Your task to perform on an android device: Go to Google maps Image 0: 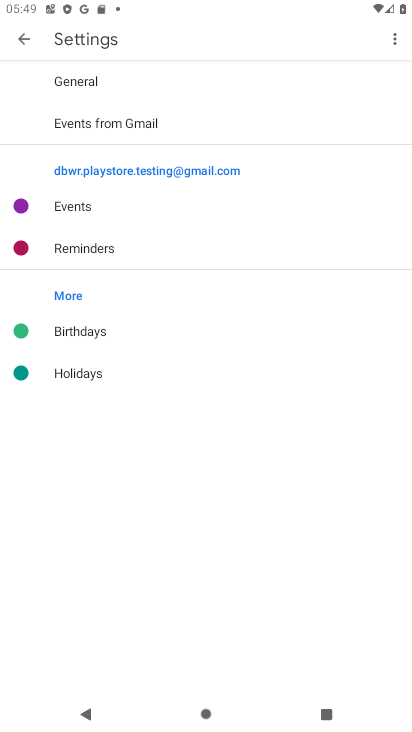
Step 0: press home button
Your task to perform on an android device: Go to Google maps Image 1: 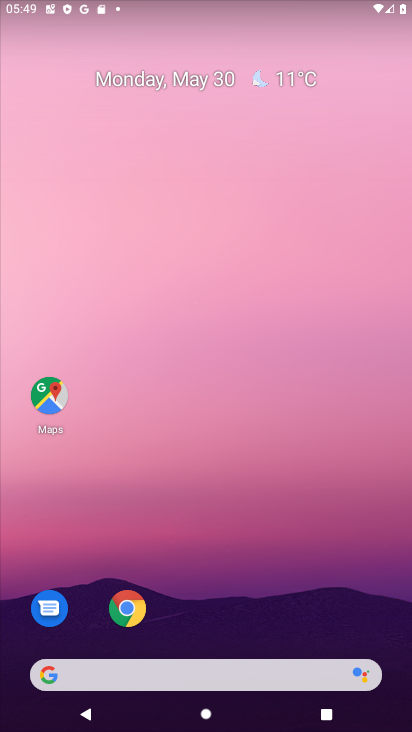
Step 1: click (39, 390)
Your task to perform on an android device: Go to Google maps Image 2: 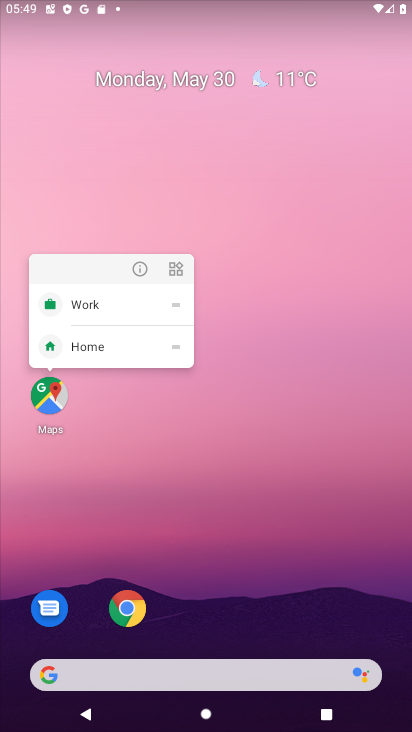
Step 2: click (48, 397)
Your task to perform on an android device: Go to Google maps Image 3: 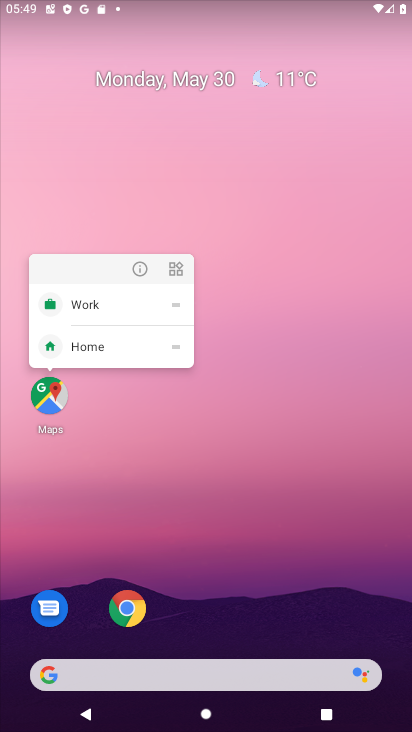
Step 3: click (54, 405)
Your task to perform on an android device: Go to Google maps Image 4: 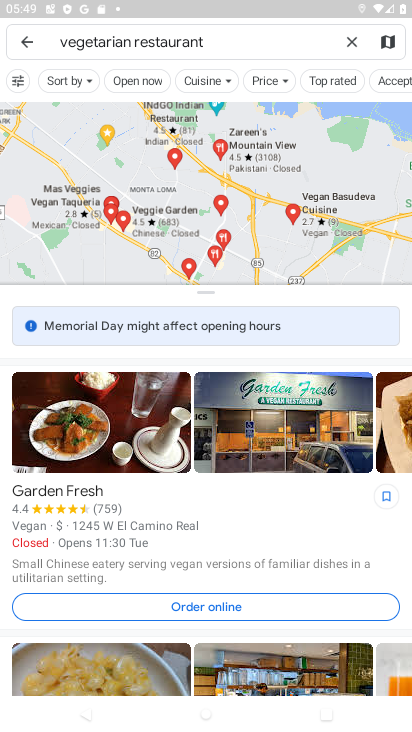
Step 4: click (341, 46)
Your task to perform on an android device: Go to Google maps Image 5: 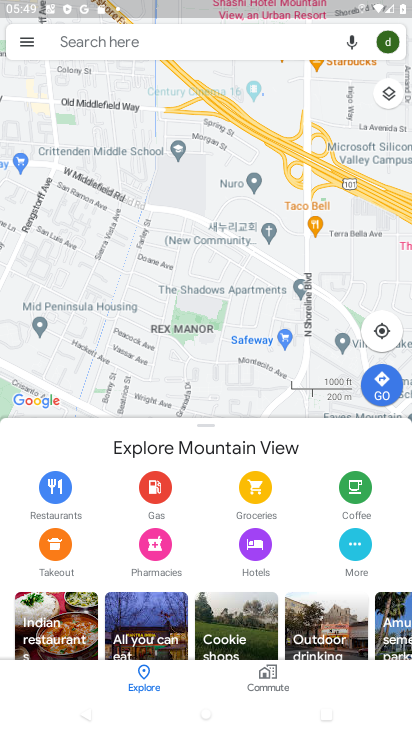
Step 5: task complete